Your task to perform on an android device: check out phone information Image 0: 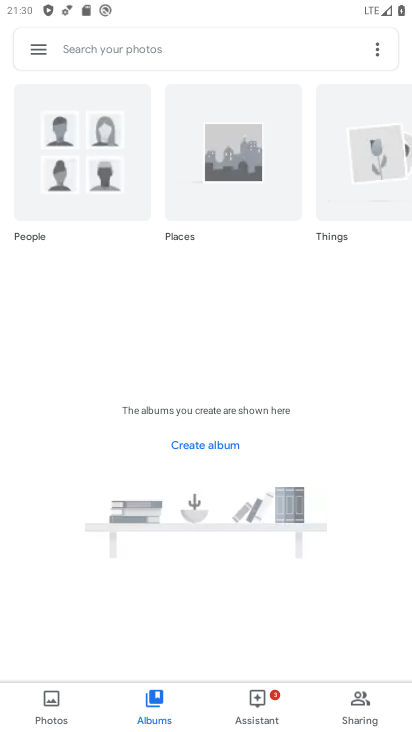
Step 0: press home button
Your task to perform on an android device: check out phone information Image 1: 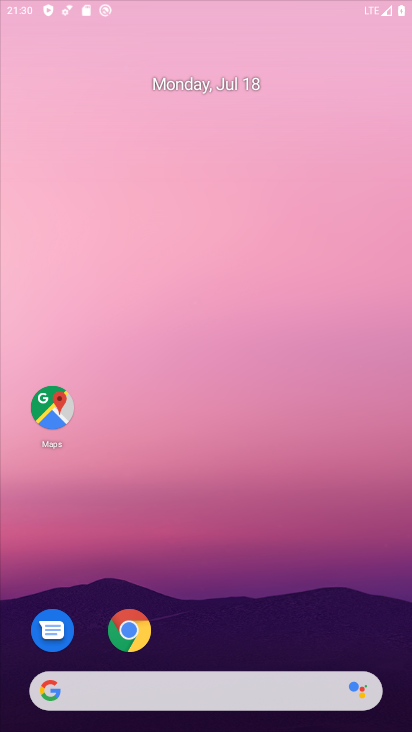
Step 1: drag from (227, 636) to (224, 269)
Your task to perform on an android device: check out phone information Image 2: 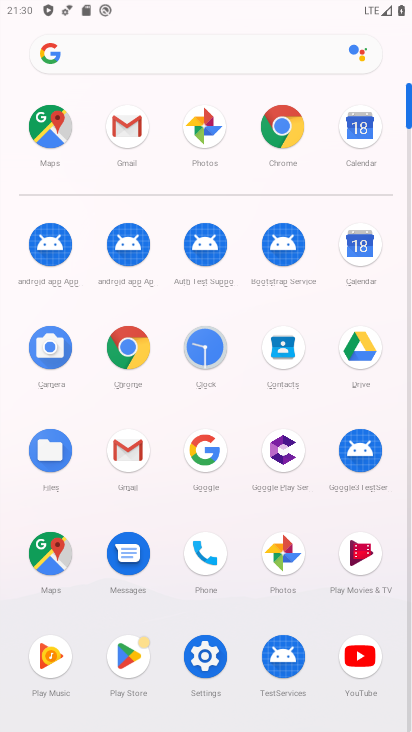
Step 2: click (204, 655)
Your task to perform on an android device: check out phone information Image 3: 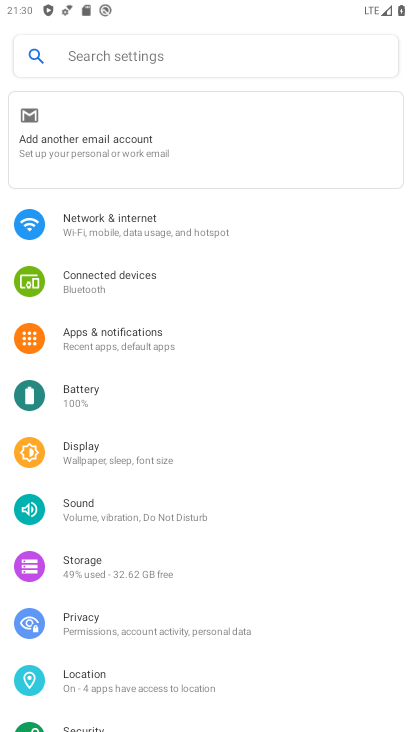
Step 3: drag from (200, 656) to (216, 209)
Your task to perform on an android device: check out phone information Image 4: 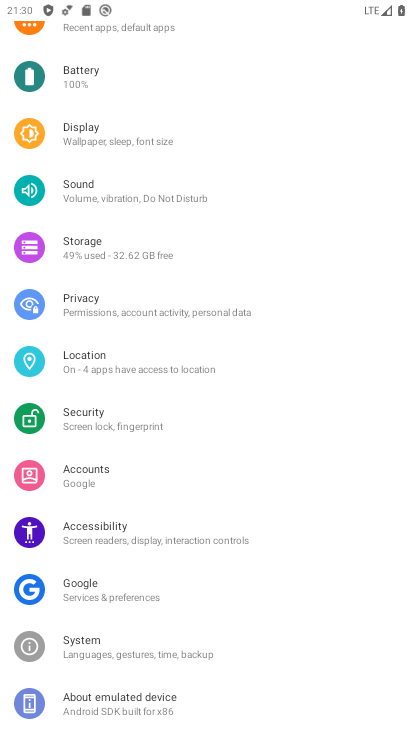
Step 4: click (121, 694)
Your task to perform on an android device: check out phone information Image 5: 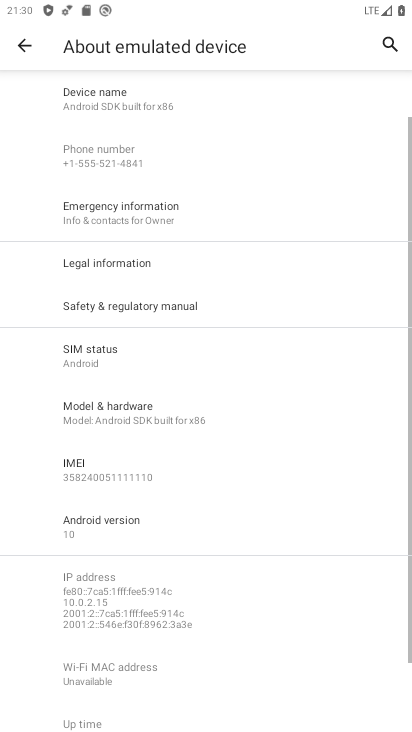
Step 5: task complete